Your task to perform on an android device: toggle airplane mode Image 0: 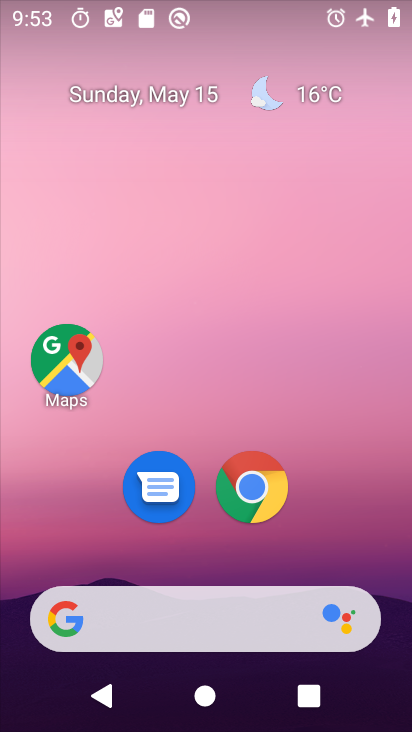
Step 0: drag from (333, 524) to (319, 188)
Your task to perform on an android device: toggle airplane mode Image 1: 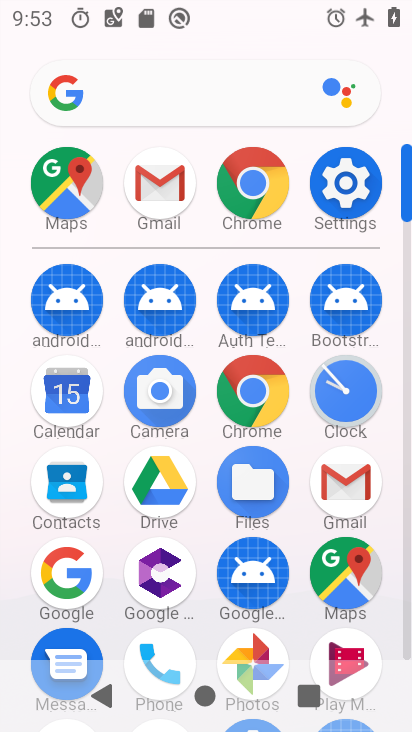
Step 1: click (340, 196)
Your task to perform on an android device: toggle airplane mode Image 2: 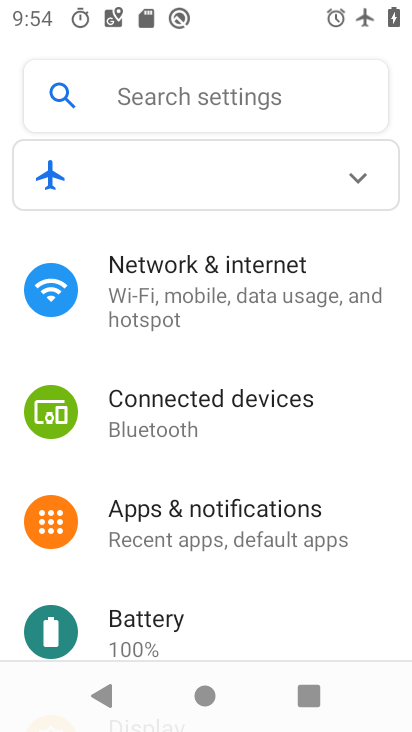
Step 2: click (252, 293)
Your task to perform on an android device: toggle airplane mode Image 3: 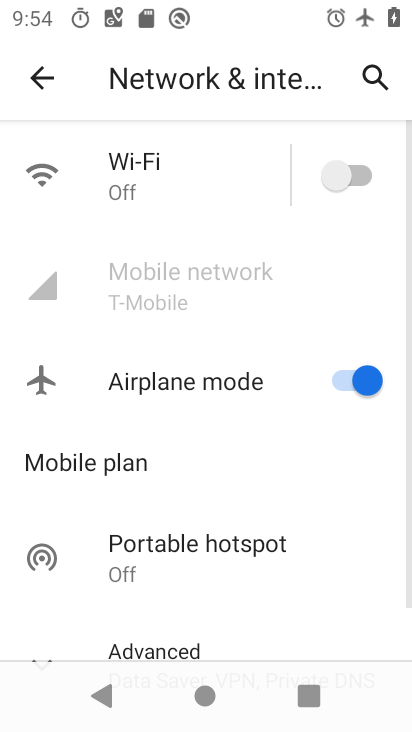
Step 3: click (342, 392)
Your task to perform on an android device: toggle airplane mode Image 4: 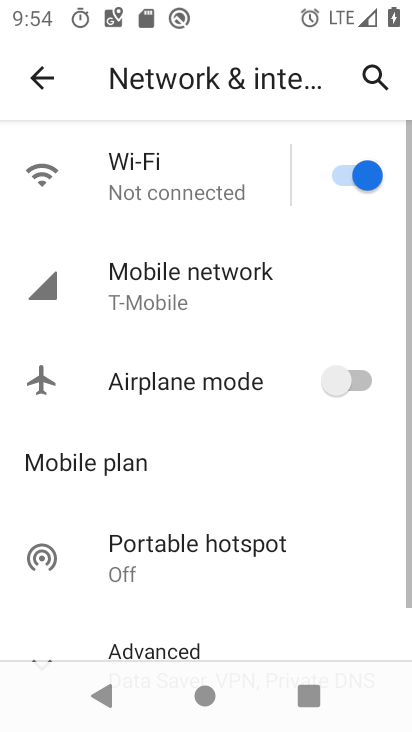
Step 4: task complete